Your task to perform on an android device: turn off data saver in the chrome app Image 0: 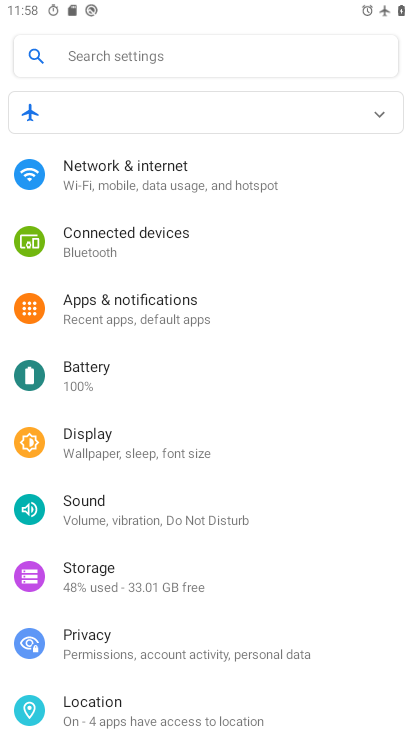
Step 0: press home button
Your task to perform on an android device: turn off data saver in the chrome app Image 1: 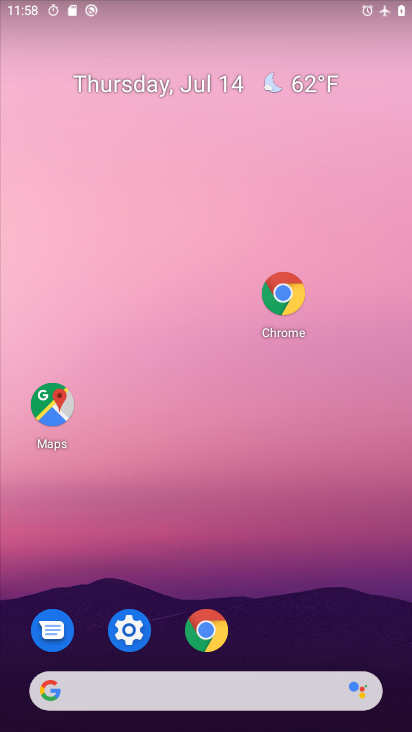
Step 1: drag from (284, 655) to (264, 229)
Your task to perform on an android device: turn off data saver in the chrome app Image 2: 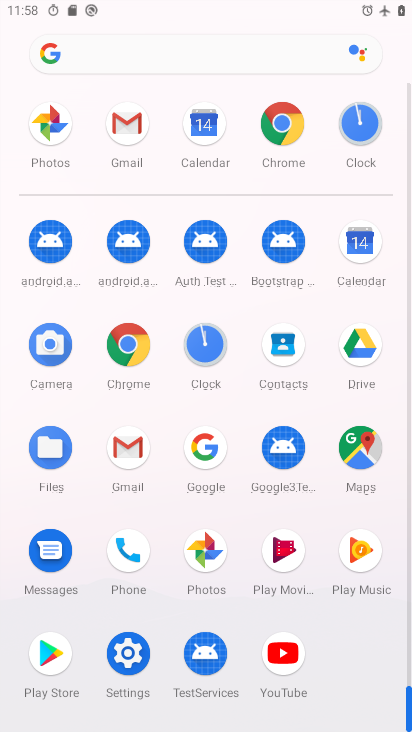
Step 2: click (282, 129)
Your task to perform on an android device: turn off data saver in the chrome app Image 3: 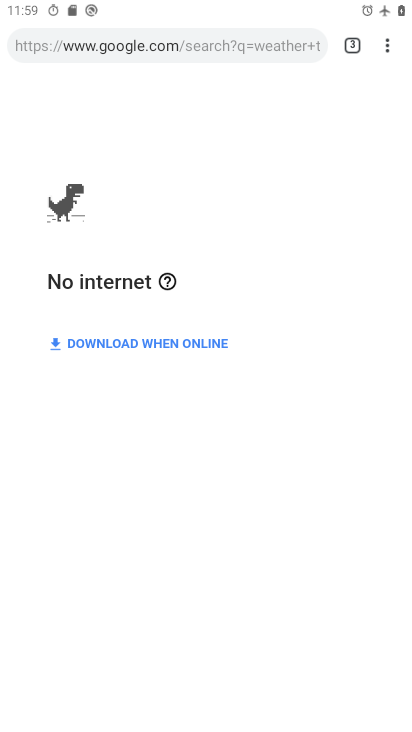
Step 3: click (375, 46)
Your task to perform on an android device: turn off data saver in the chrome app Image 4: 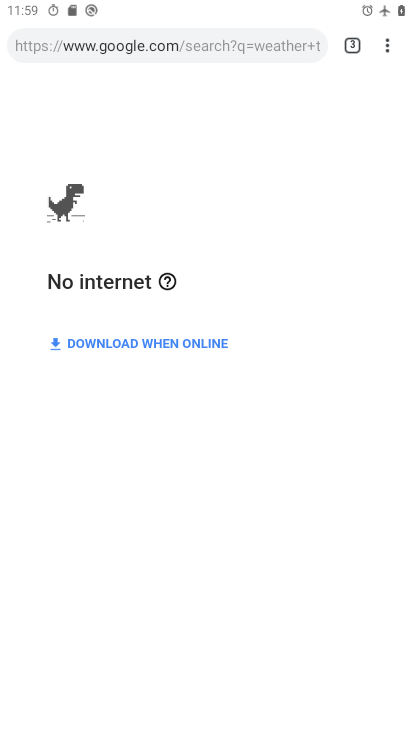
Step 4: drag from (383, 44) to (217, 537)
Your task to perform on an android device: turn off data saver in the chrome app Image 5: 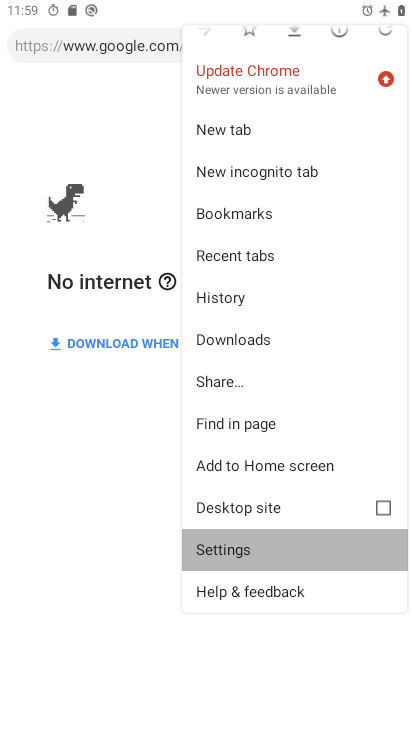
Step 5: click (217, 537)
Your task to perform on an android device: turn off data saver in the chrome app Image 6: 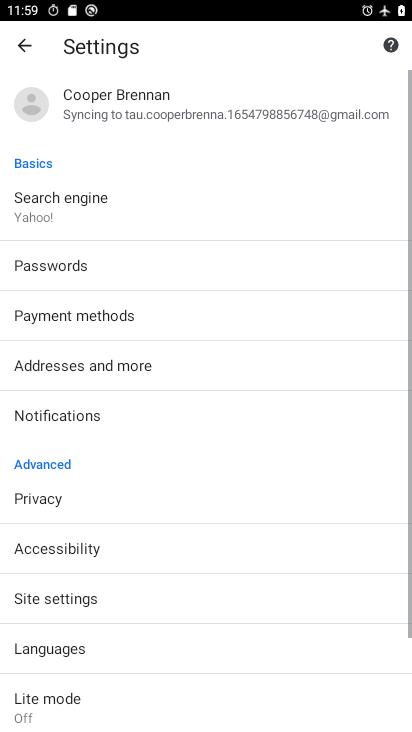
Step 6: drag from (158, 546) to (173, 348)
Your task to perform on an android device: turn off data saver in the chrome app Image 7: 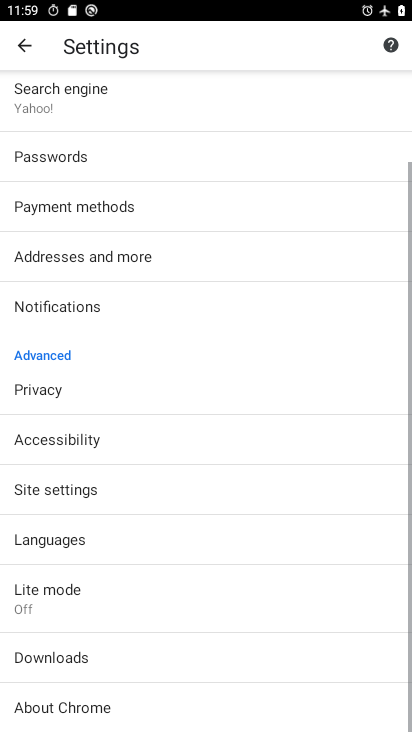
Step 7: drag from (173, 582) to (194, 272)
Your task to perform on an android device: turn off data saver in the chrome app Image 8: 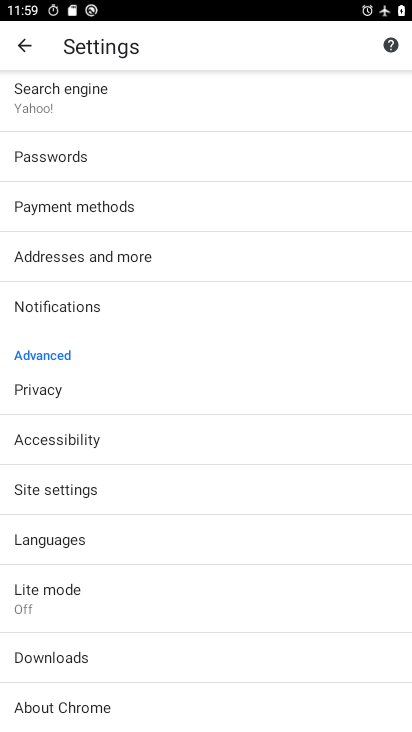
Step 8: click (40, 584)
Your task to perform on an android device: turn off data saver in the chrome app Image 9: 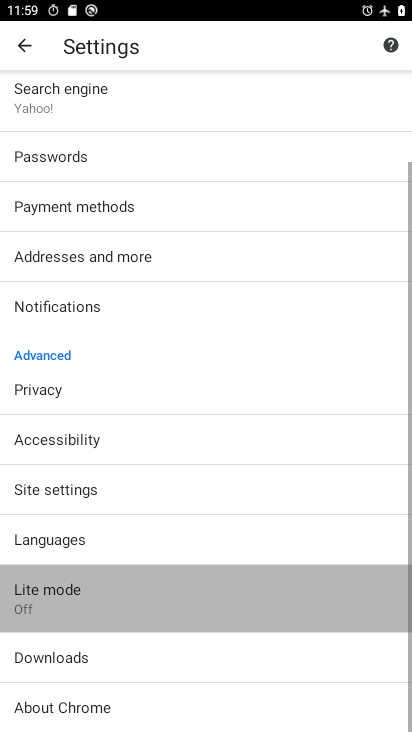
Step 9: click (41, 583)
Your task to perform on an android device: turn off data saver in the chrome app Image 10: 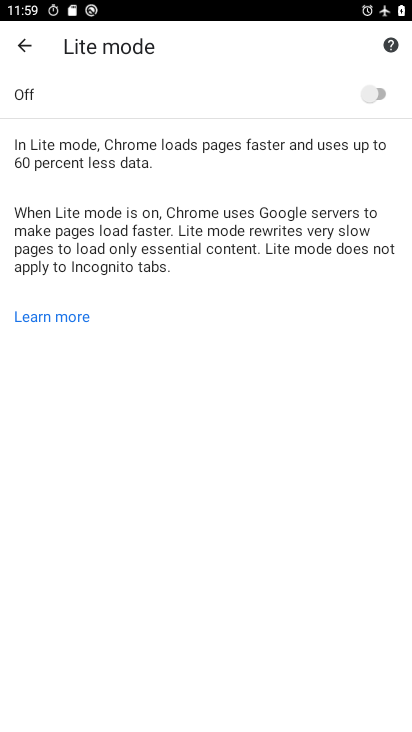
Step 10: task complete